Your task to perform on an android device: toggle translation in the chrome app Image 0: 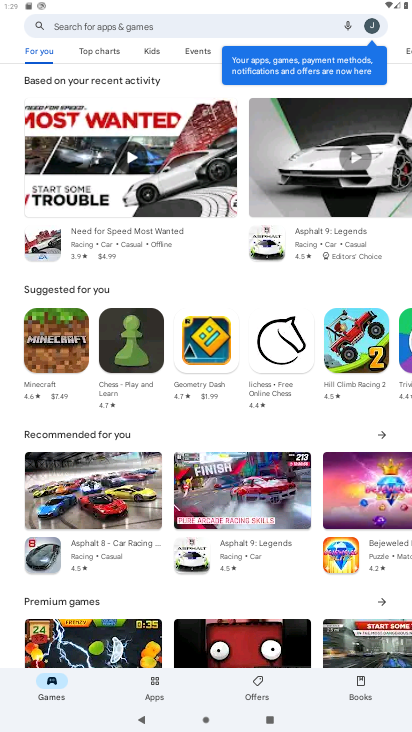
Step 0: press home button
Your task to perform on an android device: toggle translation in the chrome app Image 1: 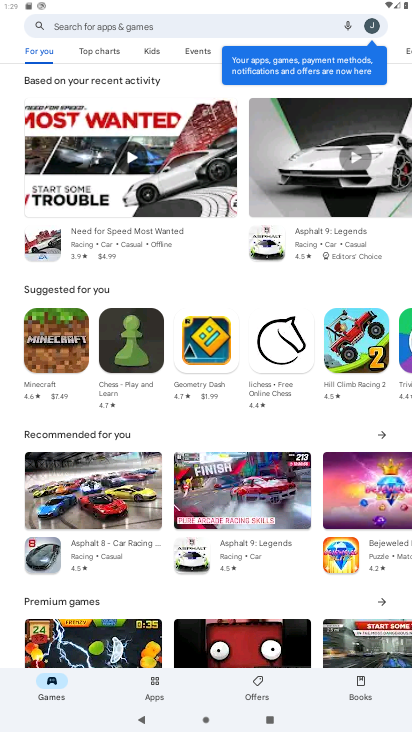
Step 1: click (185, 229)
Your task to perform on an android device: toggle translation in the chrome app Image 2: 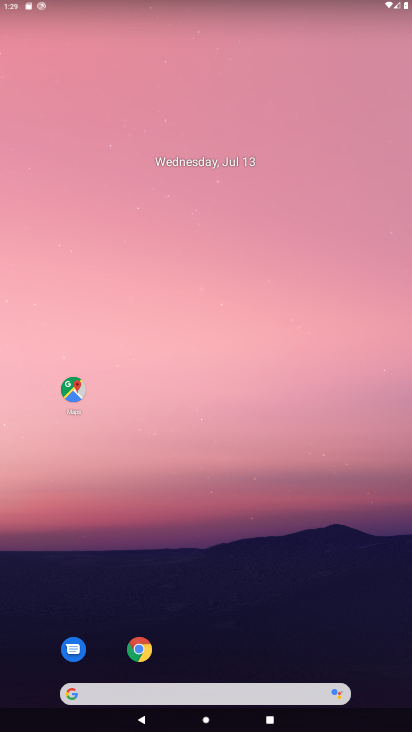
Step 2: drag from (213, 628) to (132, 164)
Your task to perform on an android device: toggle translation in the chrome app Image 3: 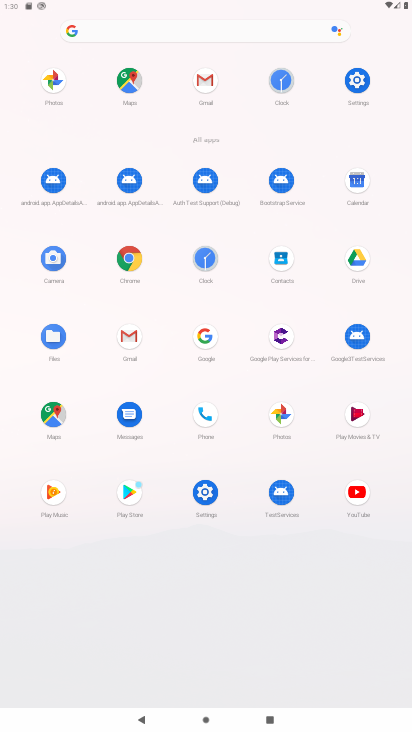
Step 3: click (125, 260)
Your task to perform on an android device: toggle translation in the chrome app Image 4: 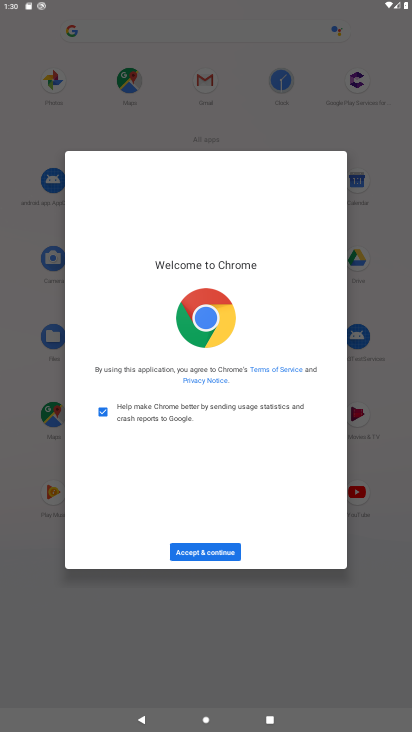
Step 4: click (218, 547)
Your task to perform on an android device: toggle translation in the chrome app Image 5: 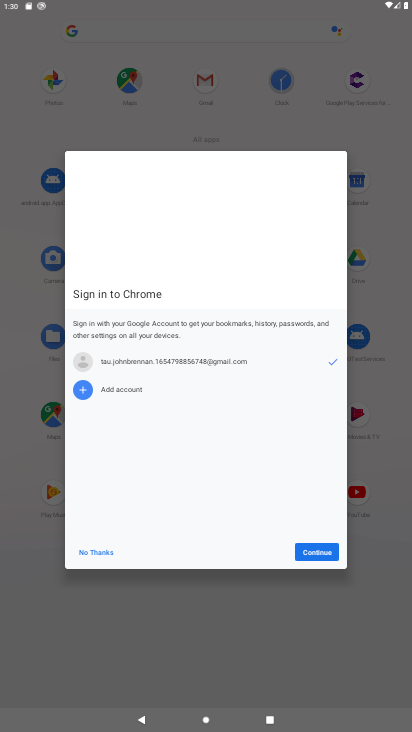
Step 5: click (306, 549)
Your task to perform on an android device: toggle translation in the chrome app Image 6: 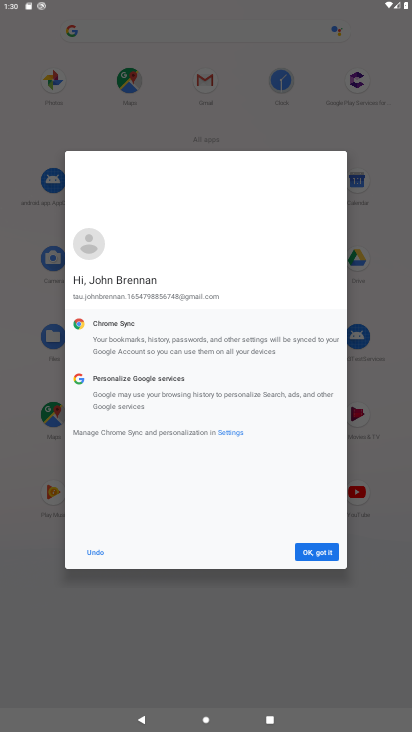
Step 6: click (322, 554)
Your task to perform on an android device: toggle translation in the chrome app Image 7: 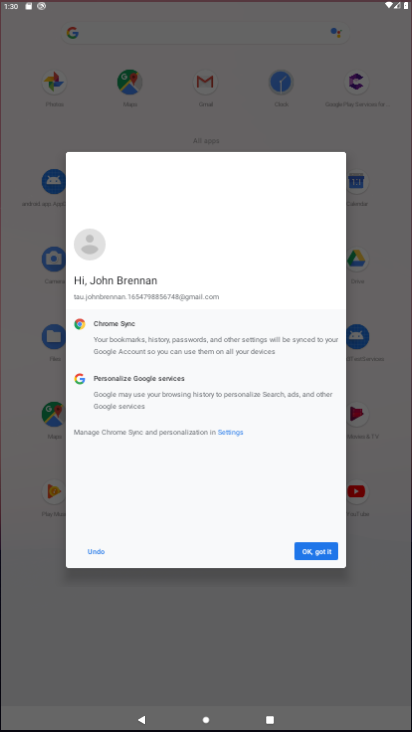
Step 7: click (321, 554)
Your task to perform on an android device: toggle translation in the chrome app Image 8: 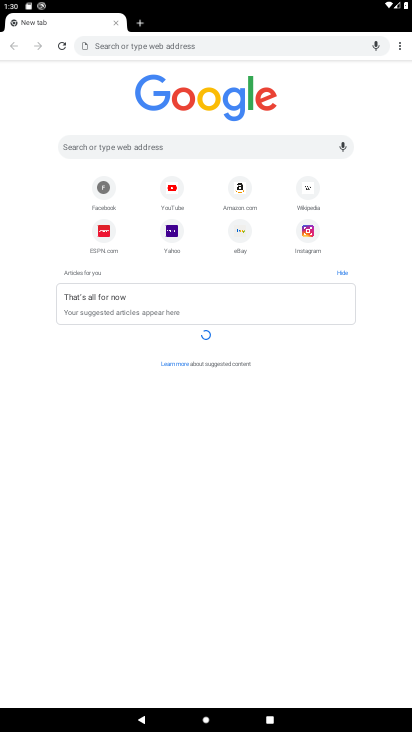
Step 8: drag from (403, 44) to (282, 218)
Your task to perform on an android device: toggle translation in the chrome app Image 9: 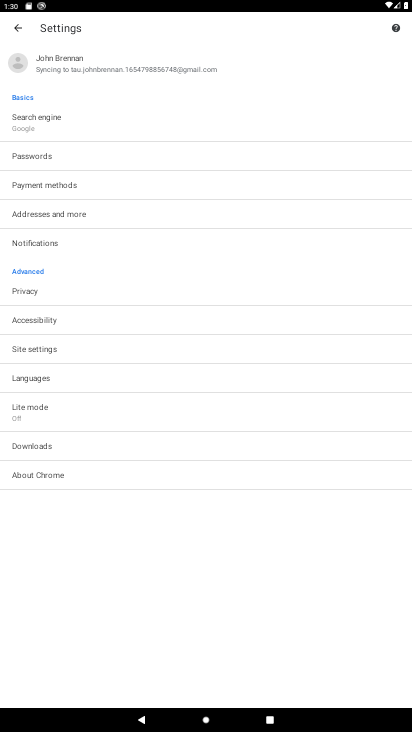
Step 9: click (19, 384)
Your task to perform on an android device: toggle translation in the chrome app Image 10: 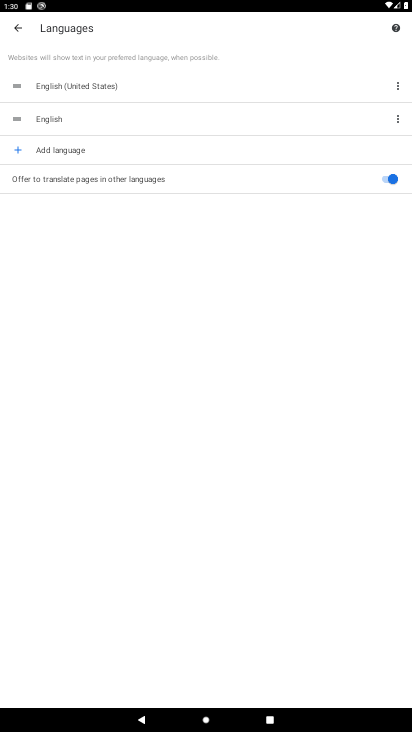
Step 10: click (256, 181)
Your task to perform on an android device: toggle translation in the chrome app Image 11: 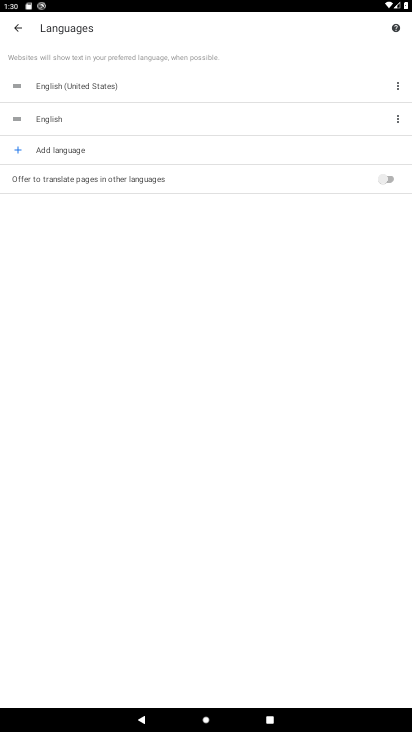
Step 11: task complete